Your task to perform on an android device: Open calendar and show me the second week of next month Image 0: 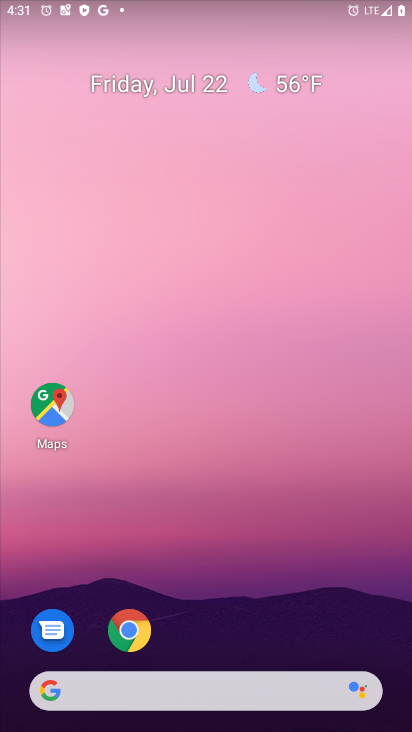
Step 0: drag from (224, 694) to (193, 77)
Your task to perform on an android device: Open calendar and show me the second week of next month Image 1: 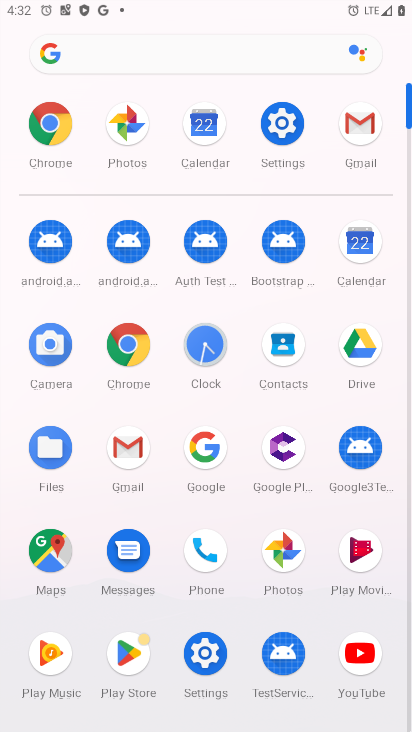
Step 1: click (346, 246)
Your task to perform on an android device: Open calendar and show me the second week of next month Image 2: 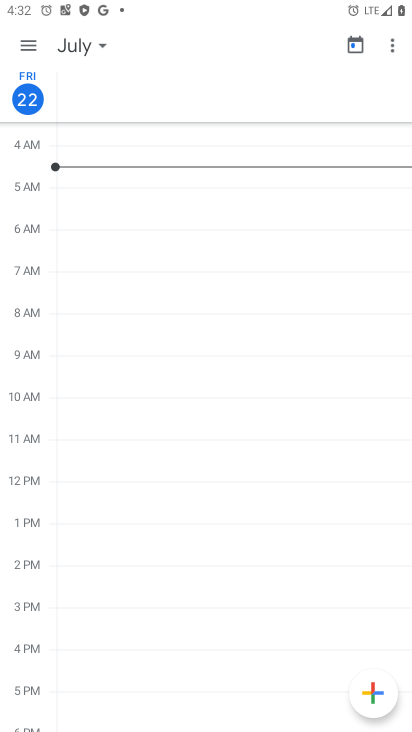
Step 2: click (26, 44)
Your task to perform on an android device: Open calendar and show me the second week of next month Image 3: 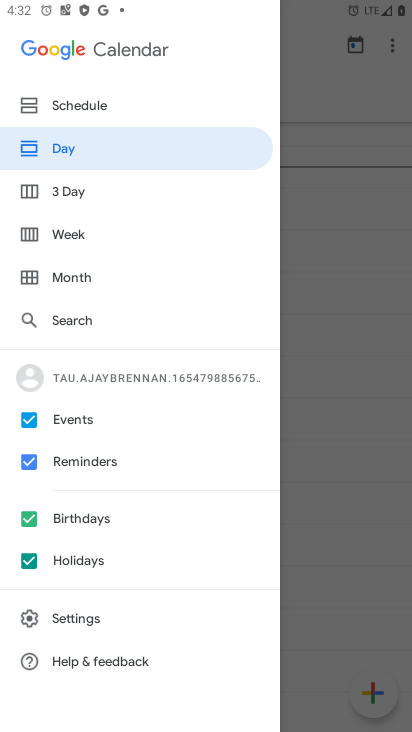
Step 3: click (79, 627)
Your task to perform on an android device: Open calendar and show me the second week of next month Image 4: 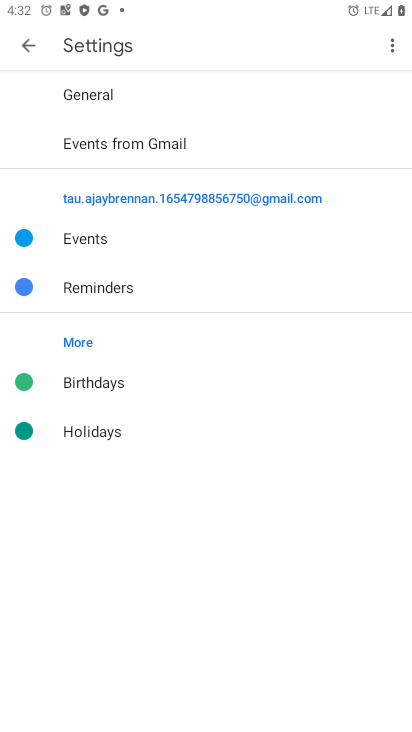
Step 4: click (38, 43)
Your task to perform on an android device: Open calendar and show me the second week of next month Image 5: 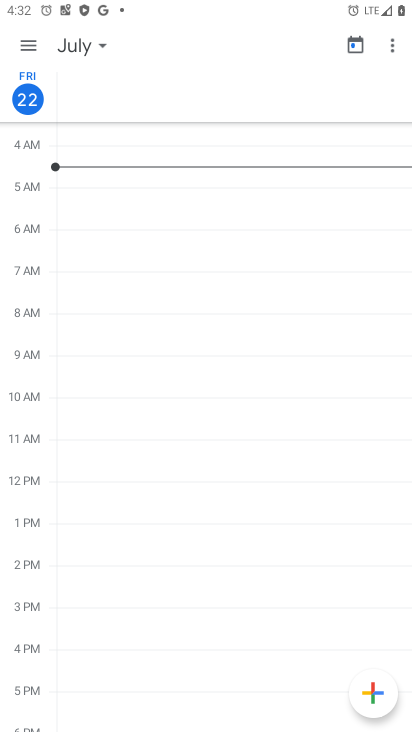
Step 5: click (31, 44)
Your task to perform on an android device: Open calendar and show me the second week of next month Image 6: 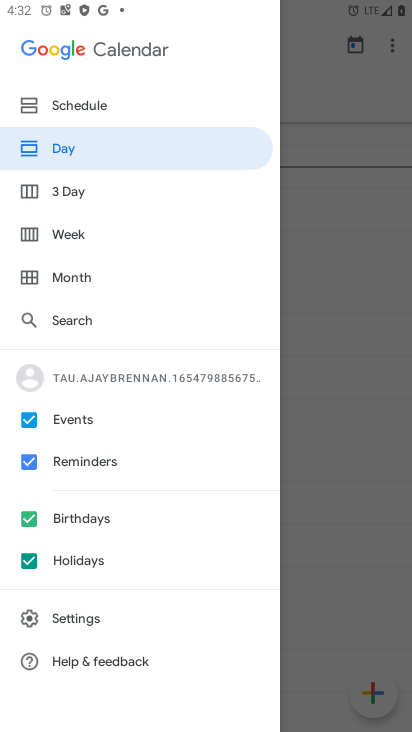
Step 6: click (95, 277)
Your task to perform on an android device: Open calendar and show me the second week of next month Image 7: 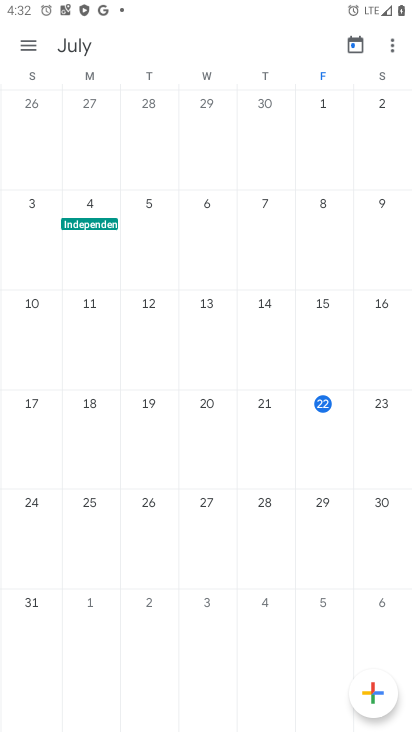
Step 7: task complete